Your task to perform on an android device: When is my next meeting? Image 0: 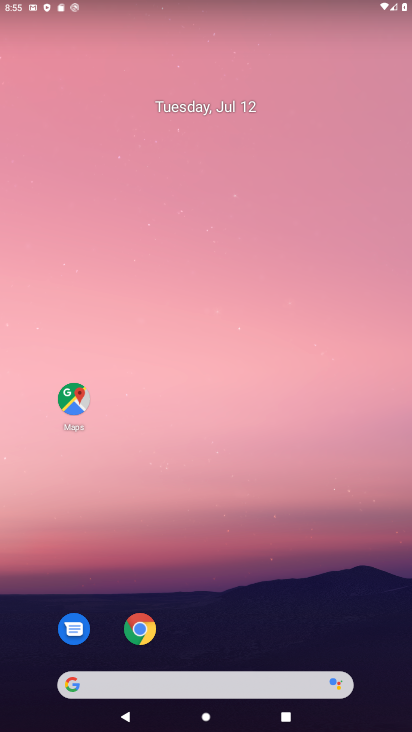
Step 0: click (185, 247)
Your task to perform on an android device: When is my next meeting? Image 1: 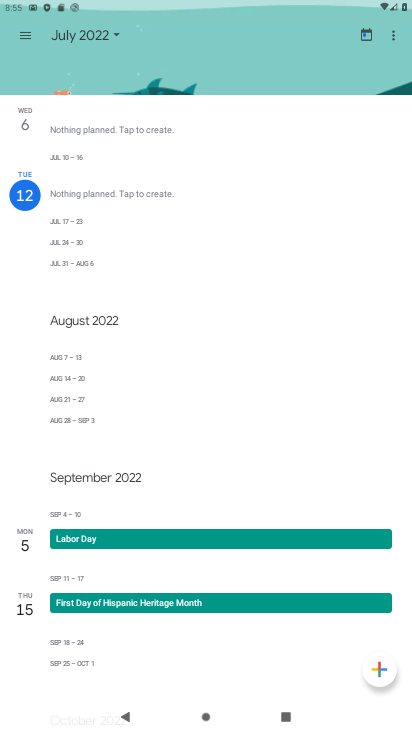
Step 1: press back button
Your task to perform on an android device: When is my next meeting? Image 2: 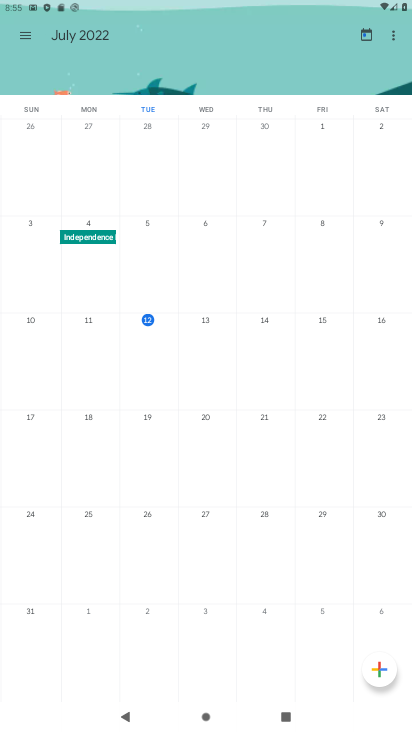
Step 2: click (207, 317)
Your task to perform on an android device: When is my next meeting? Image 3: 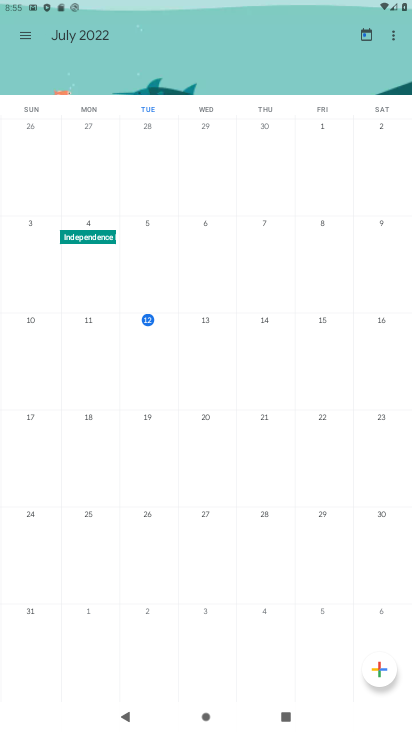
Step 3: click (206, 316)
Your task to perform on an android device: When is my next meeting? Image 4: 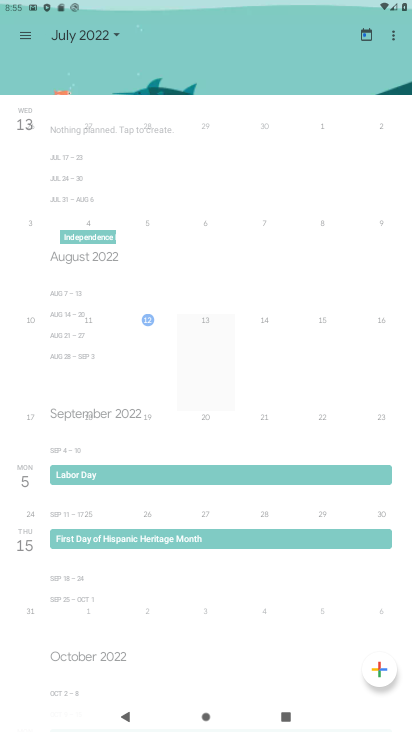
Step 4: click (206, 315)
Your task to perform on an android device: When is my next meeting? Image 5: 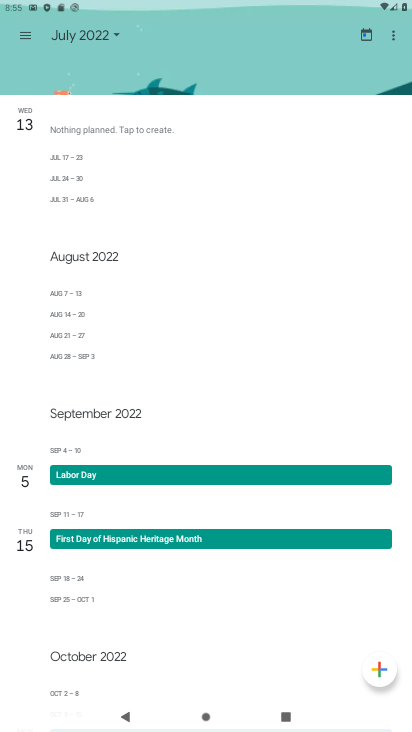
Step 5: click (63, 179)
Your task to perform on an android device: When is my next meeting? Image 6: 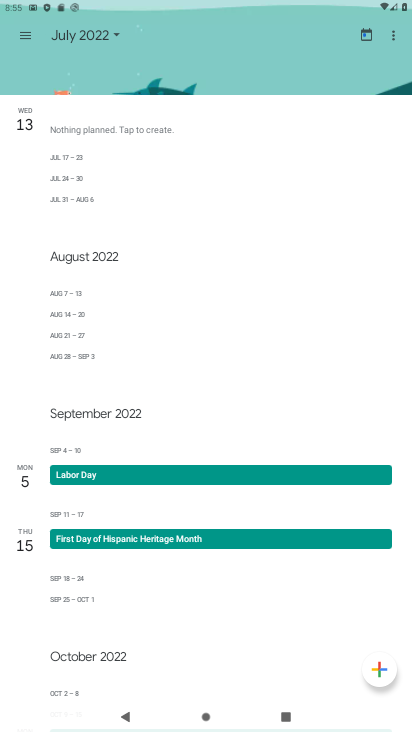
Step 6: task complete